Your task to perform on an android device: search for starred emails in the gmail app Image 0: 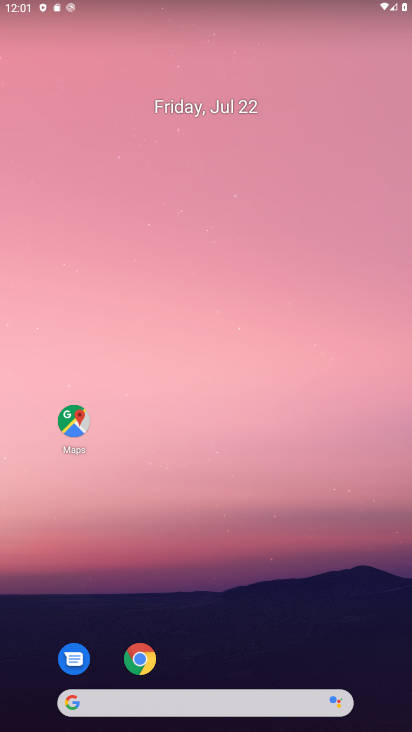
Step 0: drag from (225, 670) to (229, 18)
Your task to perform on an android device: search for starred emails in the gmail app Image 1: 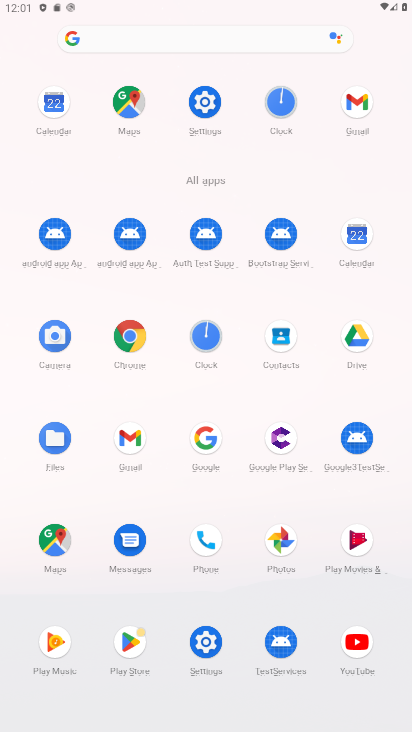
Step 1: click (349, 134)
Your task to perform on an android device: search for starred emails in the gmail app Image 2: 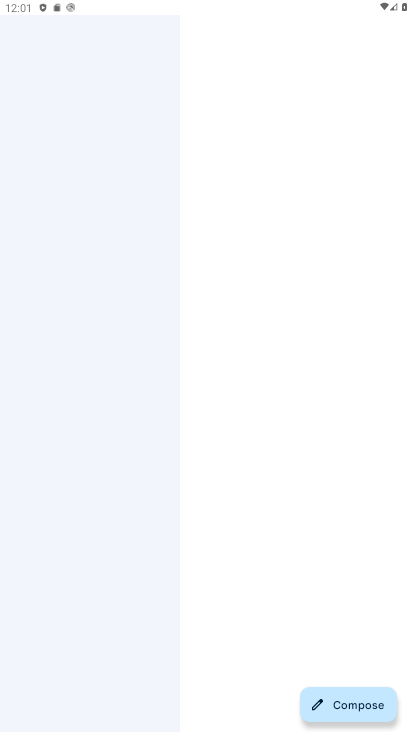
Step 2: task complete